Your task to perform on an android device: change timer sound Image 0: 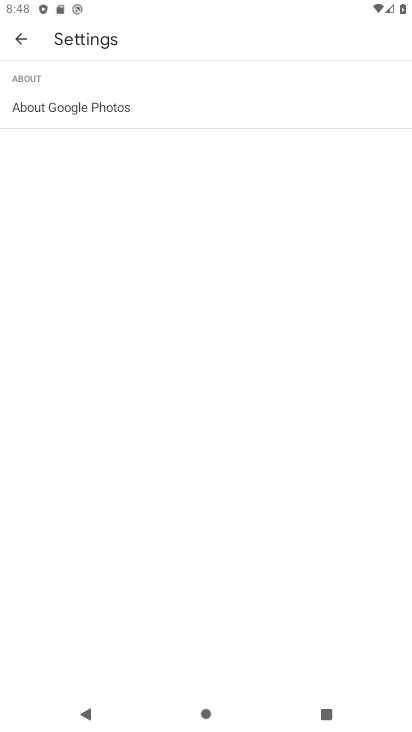
Step 0: press home button
Your task to perform on an android device: change timer sound Image 1: 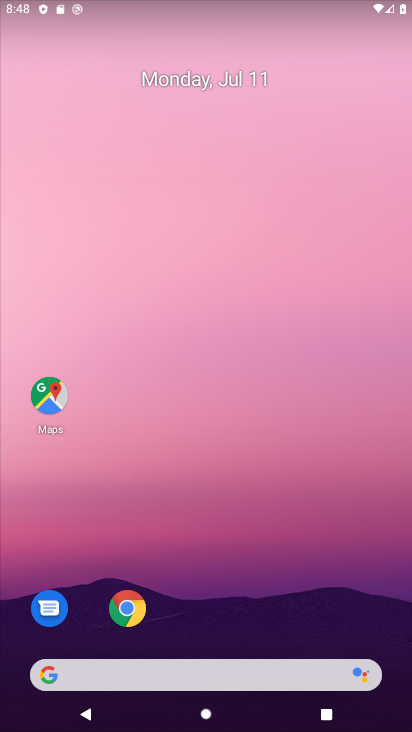
Step 1: drag from (230, 569) to (360, 1)
Your task to perform on an android device: change timer sound Image 2: 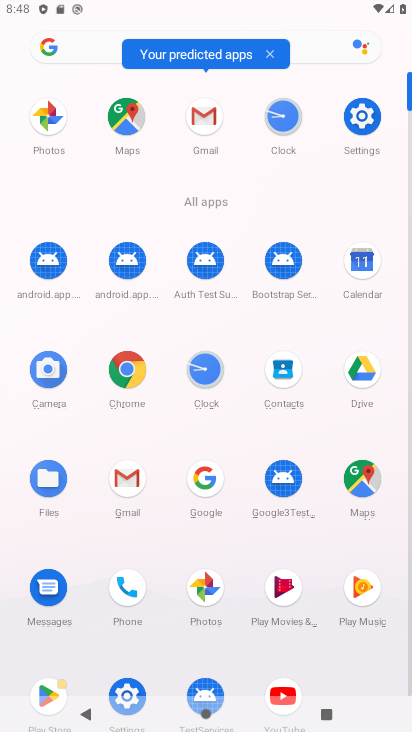
Step 2: click (206, 360)
Your task to perform on an android device: change timer sound Image 3: 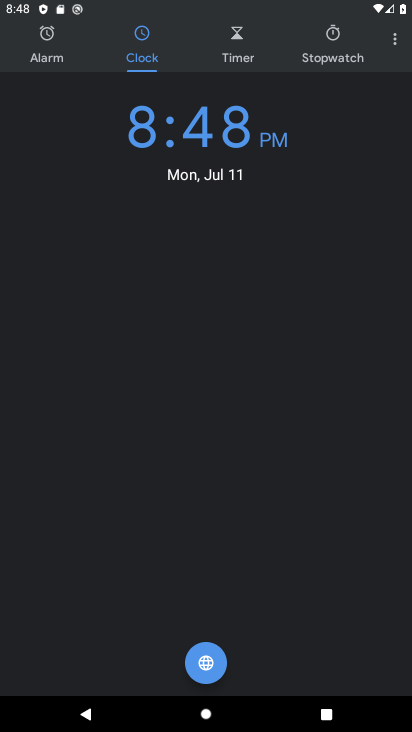
Step 3: click (399, 35)
Your task to perform on an android device: change timer sound Image 4: 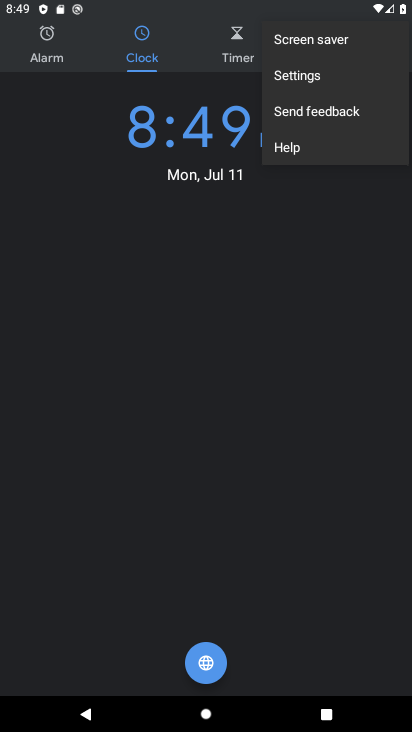
Step 4: click (313, 82)
Your task to perform on an android device: change timer sound Image 5: 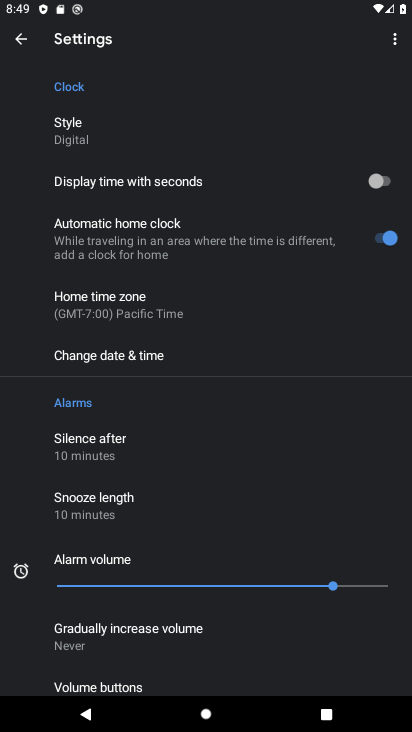
Step 5: drag from (138, 561) to (195, 346)
Your task to perform on an android device: change timer sound Image 6: 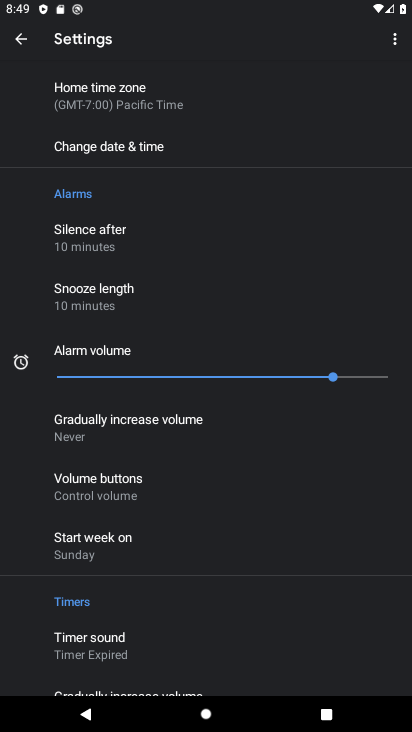
Step 6: click (85, 632)
Your task to perform on an android device: change timer sound Image 7: 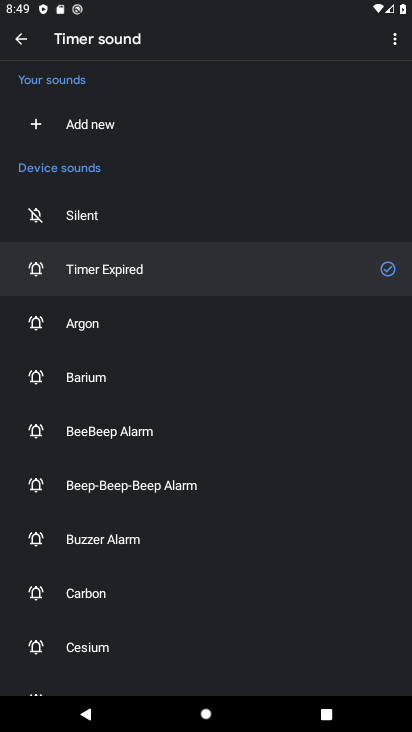
Step 7: click (94, 318)
Your task to perform on an android device: change timer sound Image 8: 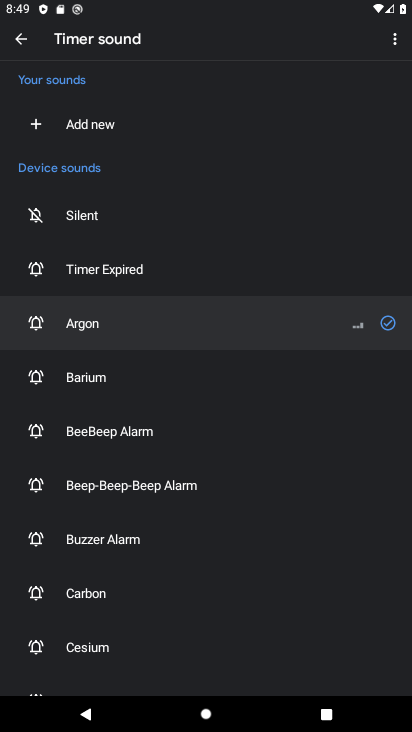
Step 8: click (391, 322)
Your task to perform on an android device: change timer sound Image 9: 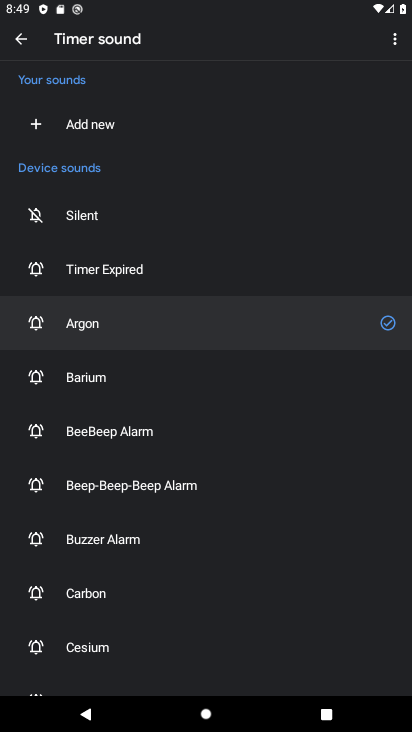
Step 9: task complete